Your task to perform on an android device: open app "YouTube Kids" (install if not already installed), go to login, and select forgot password Image 0: 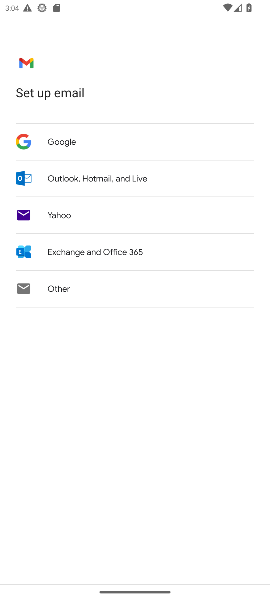
Step 0: press home button
Your task to perform on an android device: open app "YouTube Kids" (install if not already installed), go to login, and select forgot password Image 1: 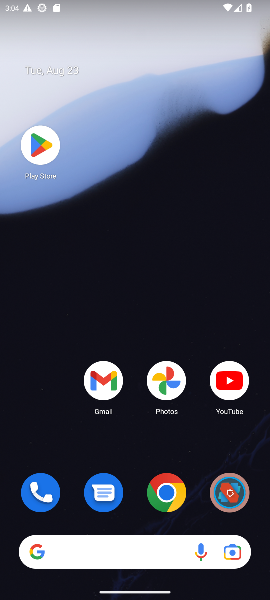
Step 1: click (30, 169)
Your task to perform on an android device: open app "YouTube Kids" (install if not already installed), go to login, and select forgot password Image 2: 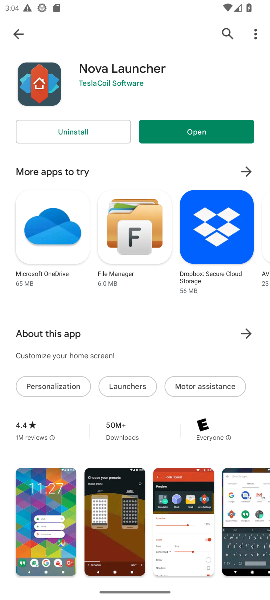
Step 2: click (224, 34)
Your task to perform on an android device: open app "YouTube Kids" (install if not already installed), go to login, and select forgot password Image 3: 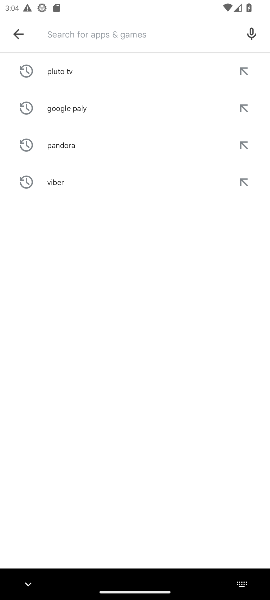
Step 3: type "youtube kd"
Your task to perform on an android device: open app "YouTube Kids" (install if not already installed), go to login, and select forgot password Image 4: 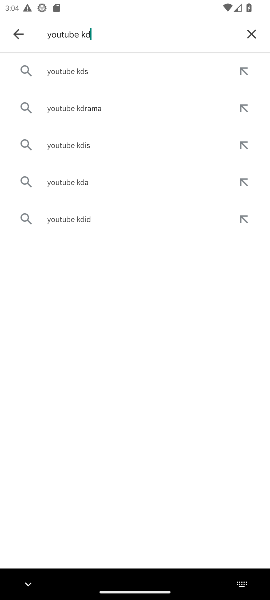
Step 4: click (121, 76)
Your task to perform on an android device: open app "YouTube Kids" (install if not already installed), go to login, and select forgot password Image 5: 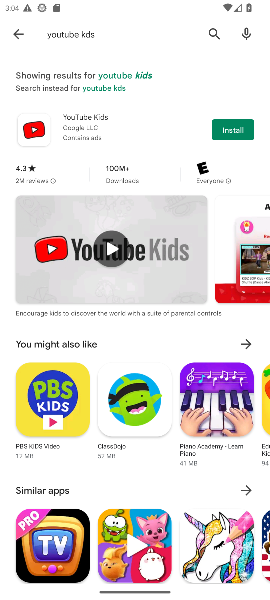
Step 5: click (225, 121)
Your task to perform on an android device: open app "YouTube Kids" (install if not already installed), go to login, and select forgot password Image 6: 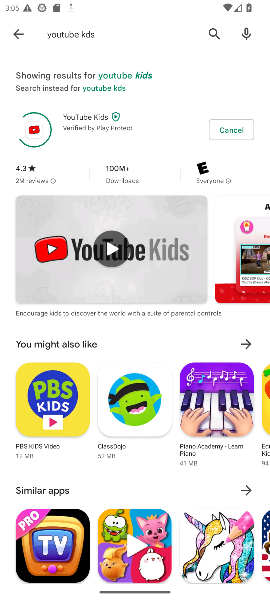
Step 6: task complete